Your task to perform on an android device: Open internet settings Image 0: 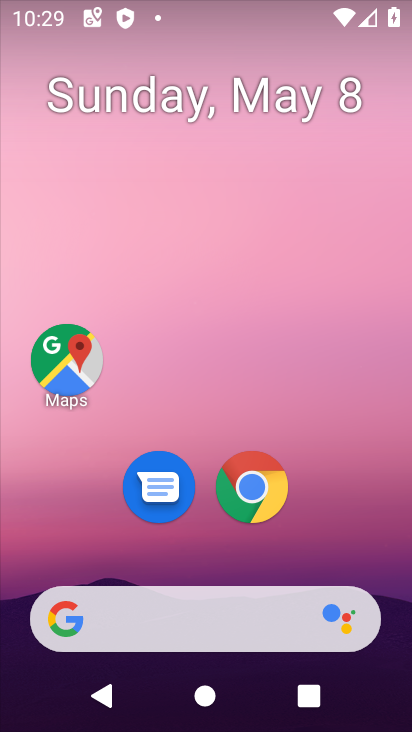
Step 0: drag from (204, 406) to (272, 13)
Your task to perform on an android device: Open internet settings Image 1: 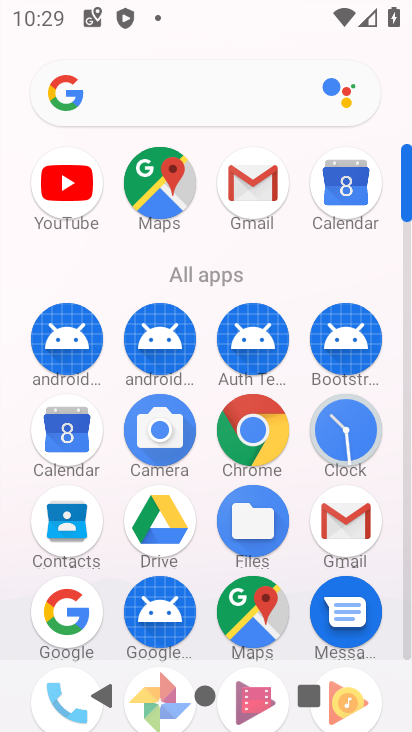
Step 1: drag from (207, 603) to (289, 134)
Your task to perform on an android device: Open internet settings Image 2: 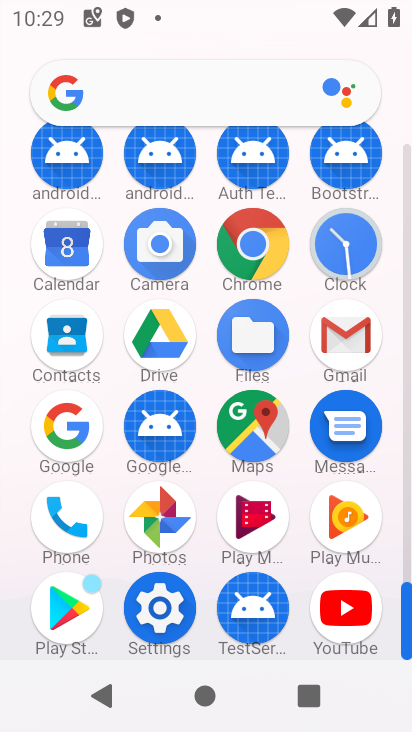
Step 2: click (168, 614)
Your task to perform on an android device: Open internet settings Image 3: 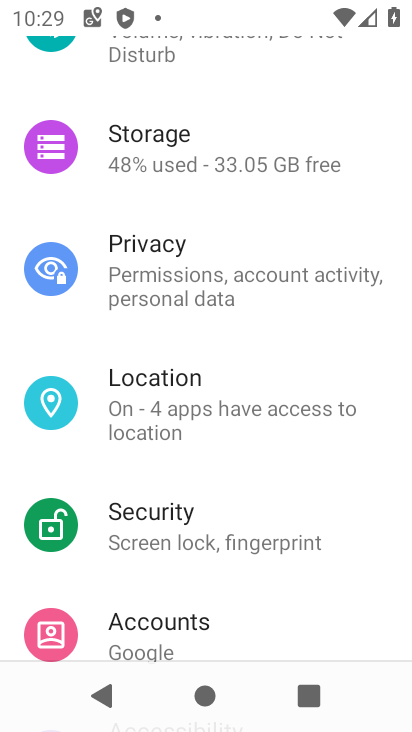
Step 3: drag from (195, 113) to (182, 612)
Your task to perform on an android device: Open internet settings Image 4: 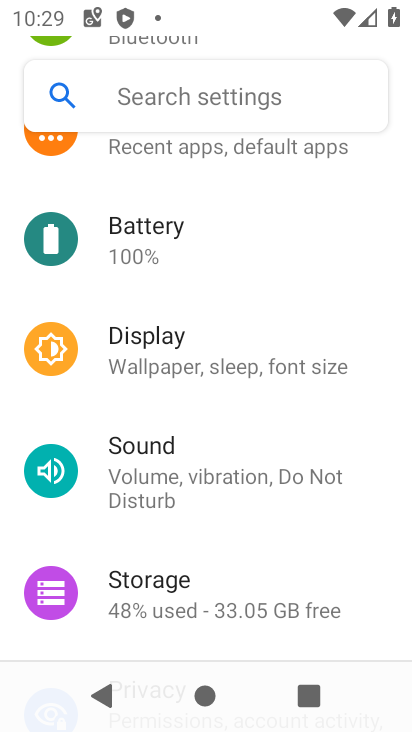
Step 4: drag from (209, 253) to (163, 641)
Your task to perform on an android device: Open internet settings Image 5: 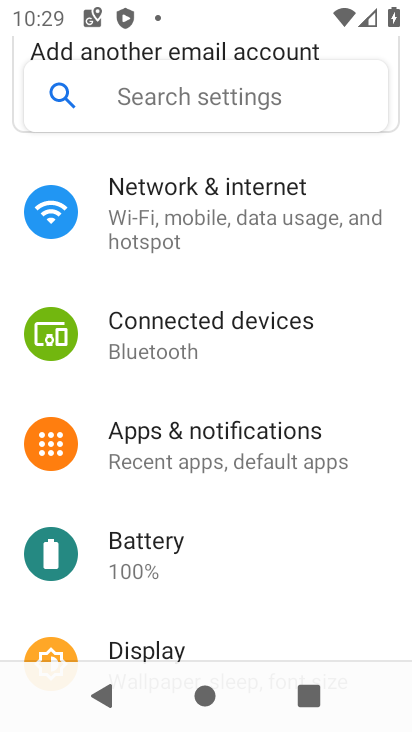
Step 5: click (196, 180)
Your task to perform on an android device: Open internet settings Image 6: 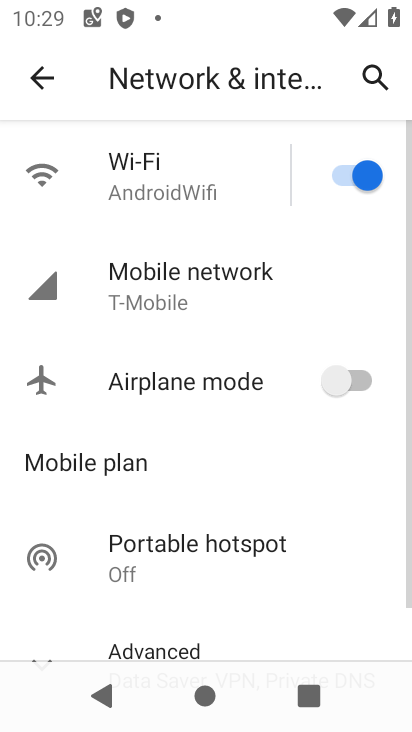
Step 6: task complete